Your task to perform on an android device: toggle location history Image 0: 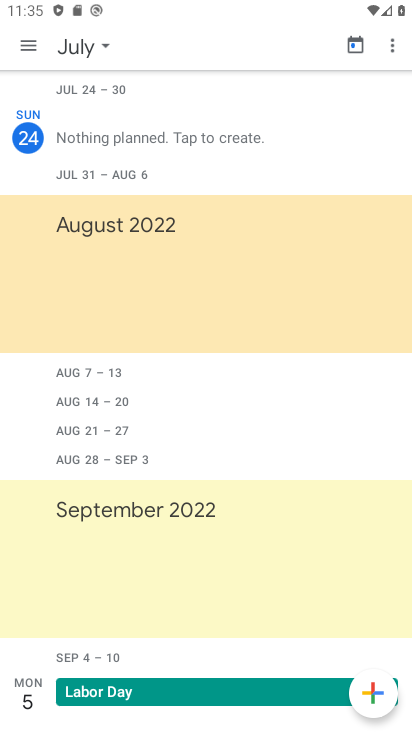
Step 0: press home button
Your task to perform on an android device: toggle location history Image 1: 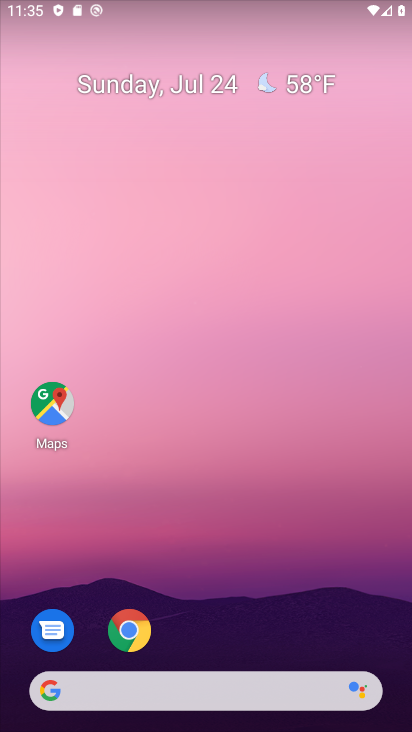
Step 1: click (60, 404)
Your task to perform on an android device: toggle location history Image 2: 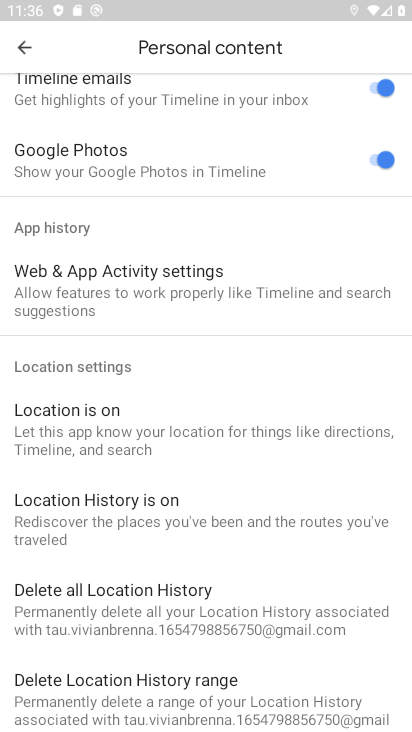
Step 2: click (91, 507)
Your task to perform on an android device: toggle location history Image 3: 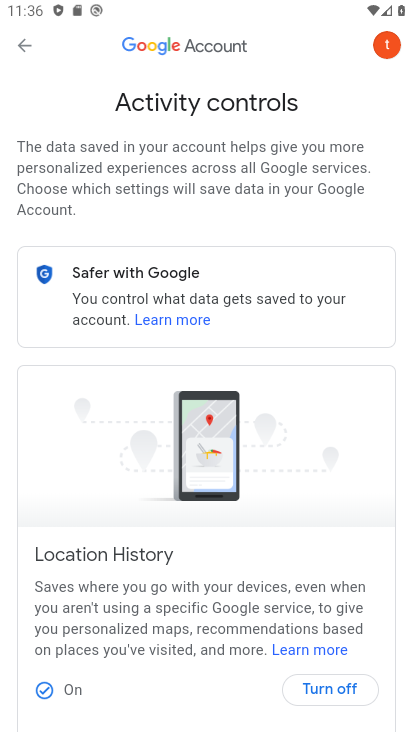
Step 3: click (344, 686)
Your task to perform on an android device: toggle location history Image 4: 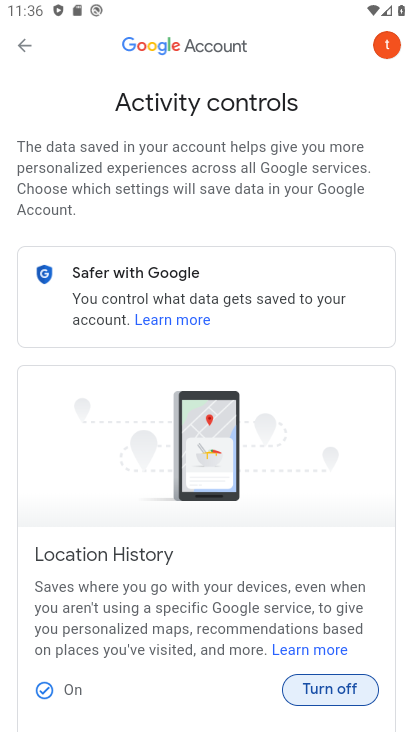
Step 4: click (364, 694)
Your task to perform on an android device: toggle location history Image 5: 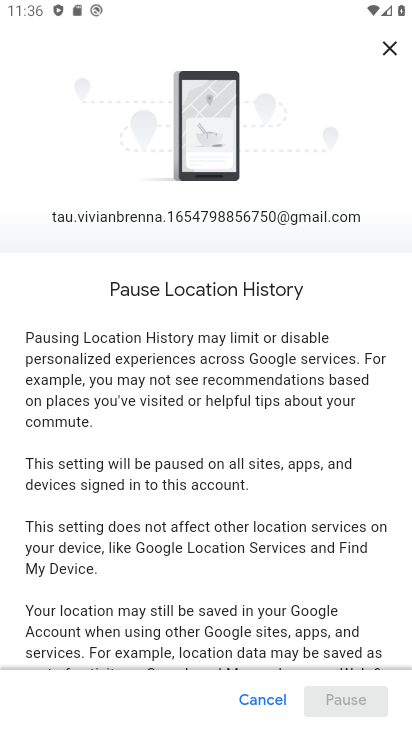
Step 5: drag from (332, 642) to (269, 232)
Your task to perform on an android device: toggle location history Image 6: 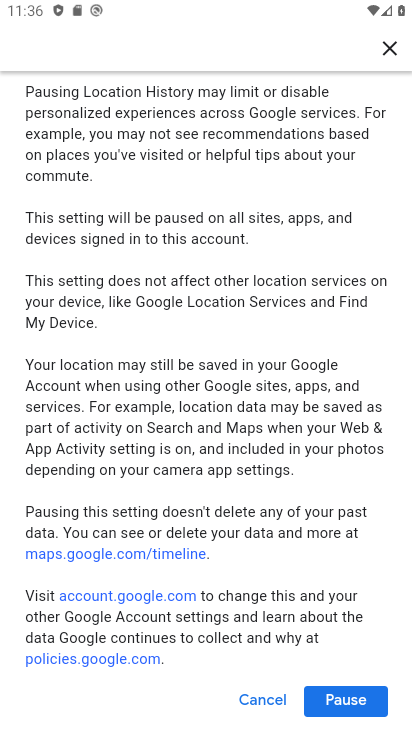
Step 6: click (361, 709)
Your task to perform on an android device: toggle location history Image 7: 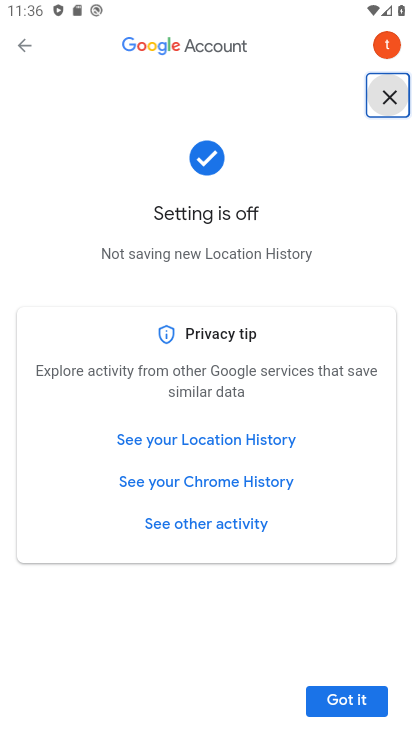
Step 7: click (370, 703)
Your task to perform on an android device: toggle location history Image 8: 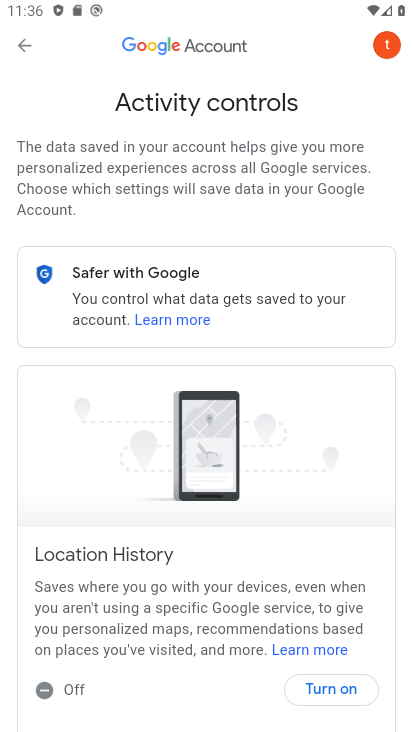
Step 8: task complete